Your task to perform on an android device: turn on bluetooth scan Image 0: 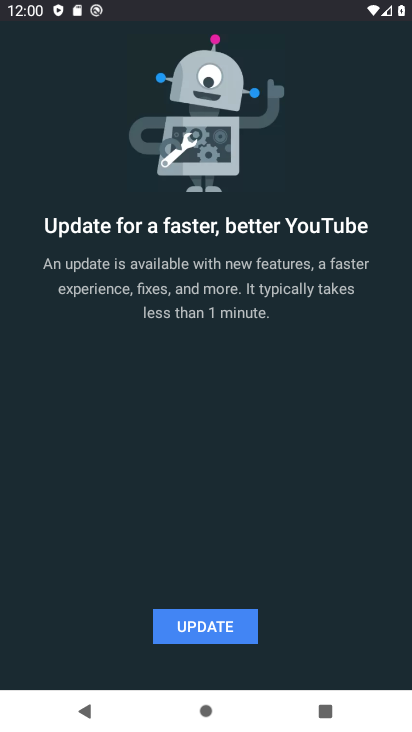
Step 0: press home button
Your task to perform on an android device: turn on bluetooth scan Image 1: 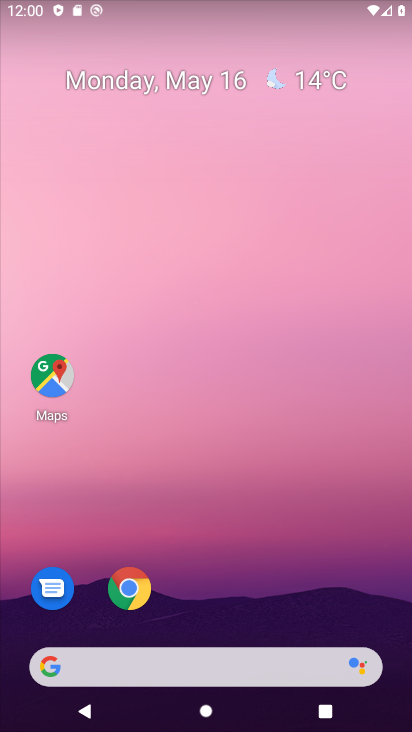
Step 1: drag from (320, 416) to (366, 100)
Your task to perform on an android device: turn on bluetooth scan Image 2: 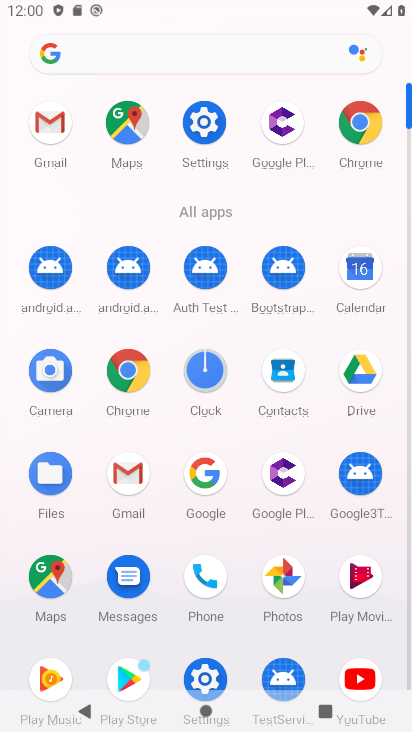
Step 2: click (202, 677)
Your task to perform on an android device: turn on bluetooth scan Image 3: 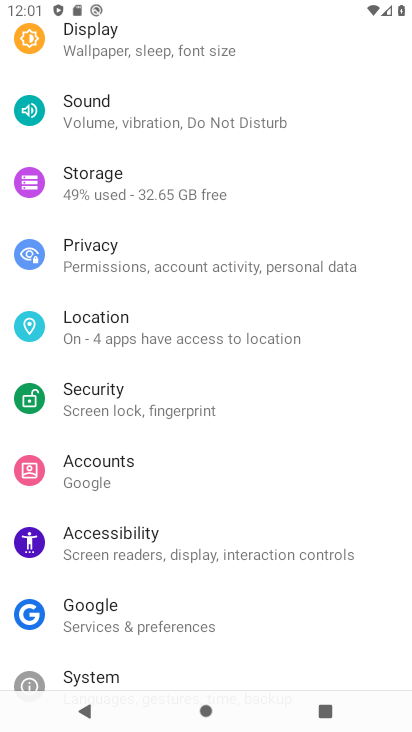
Step 3: drag from (165, 494) to (189, 169)
Your task to perform on an android device: turn on bluetooth scan Image 4: 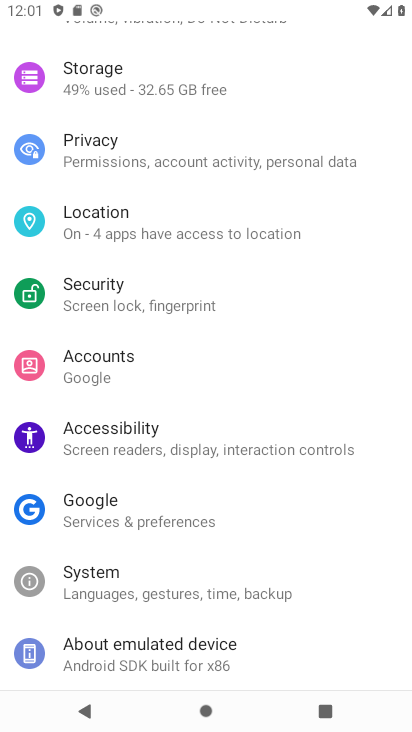
Step 4: click (171, 226)
Your task to perform on an android device: turn on bluetooth scan Image 5: 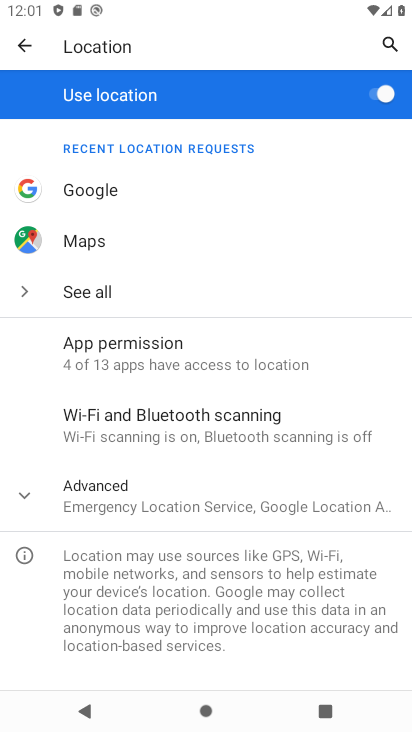
Step 5: click (146, 427)
Your task to perform on an android device: turn on bluetooth scan Image 6: 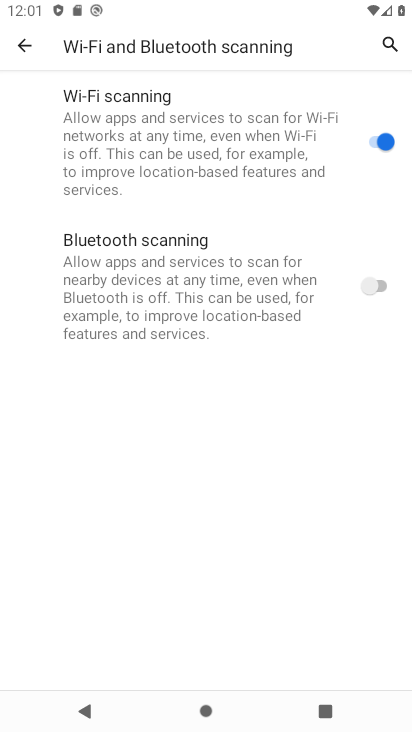
Step 6: click (356, 292)
Your task to perform on an android device: turn on bluetooth scan Image 7: 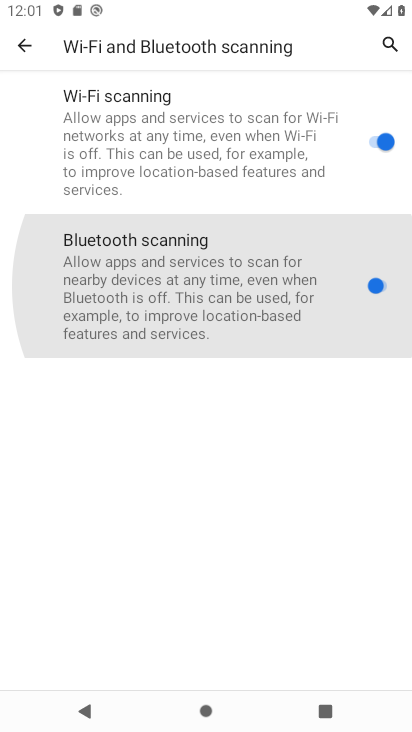
Step 7: click (365, 284)
Your task to perform on an android device: turn on bluetooth scan Image 8: 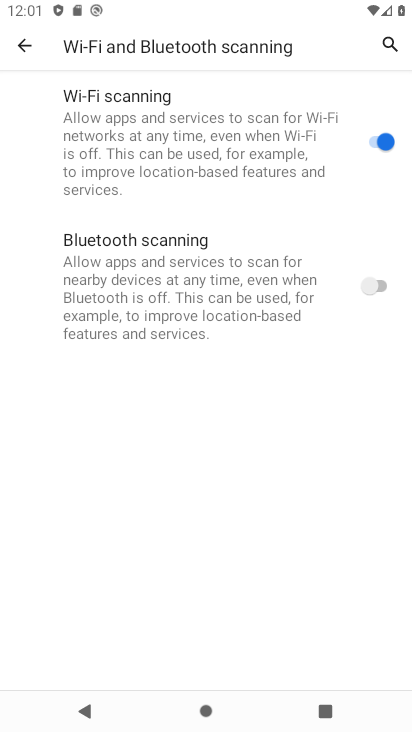
Step 8: click (377, 286)
Your task to perform on an android device: turn on bluetooth scan Image 9: 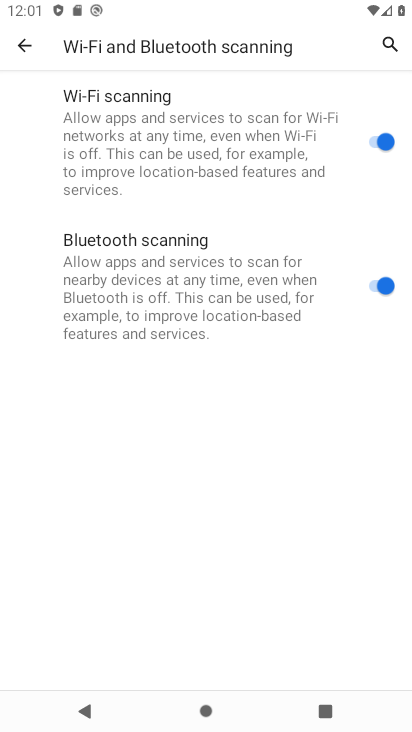
Step 9: task complete